Your task to perform on an android device: Open Wikipedia Image 0: 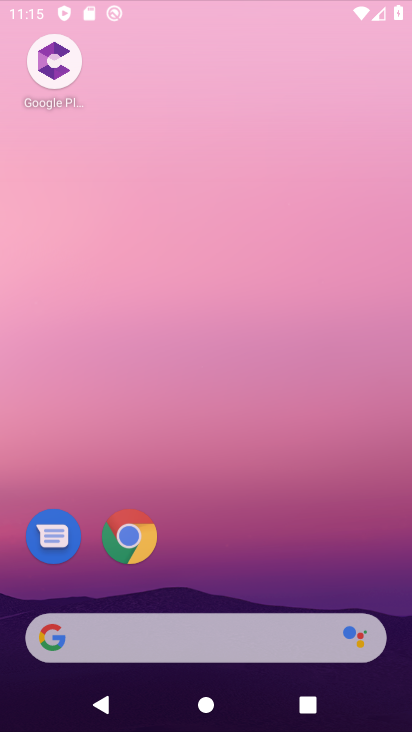
Step 0: click (296, 344)
Your task to perform on an android device: Open Wikipedia Image 1: 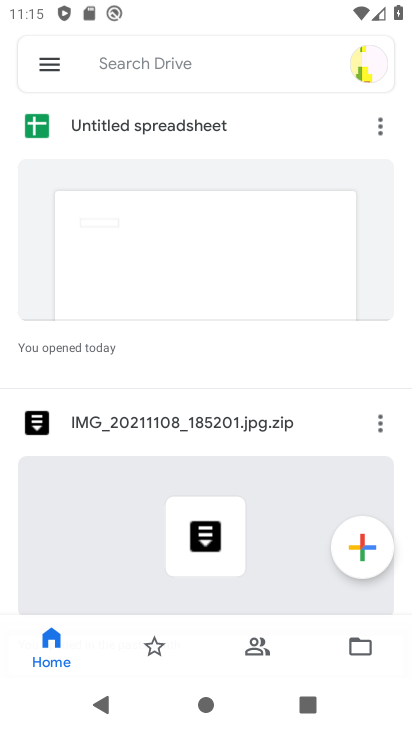
Step 1: press home button
Your task to perform on an android device: Open Wikipedia Image 2: 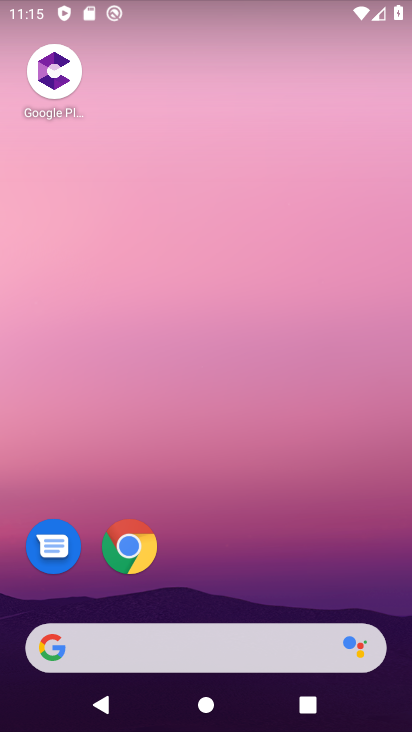
Step 2: drag from (255, 14) to (230, 534)
Your task to perform on an android device: Open Wikipedia Image 3: 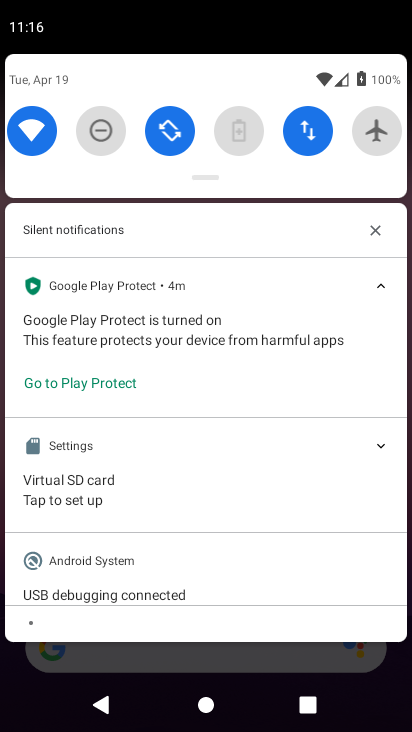
Step 3: press home button
Your task to perform on an android device: Open Wikipedia Image 4: 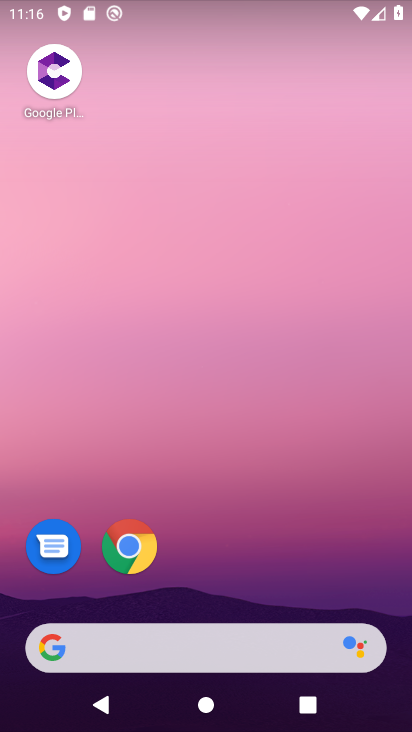
Step 4: drag from (173, 521) to (159, 84)
Your task to perform on an android device: Open Wikipedia Image 5: 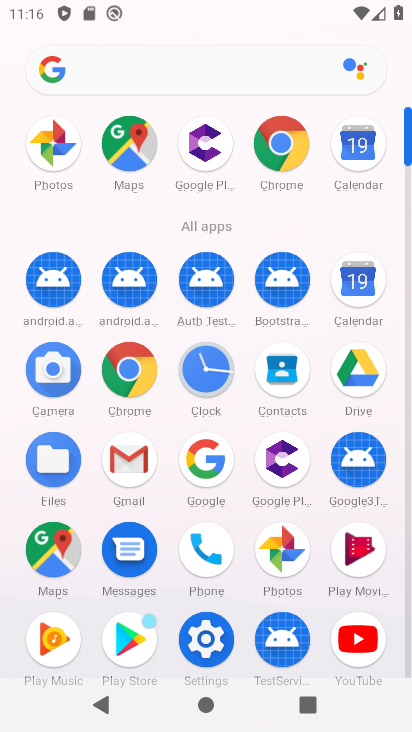
Step 5: click (127, 380)
Your task to perform on an android device: Open Wikipedia Image 6: 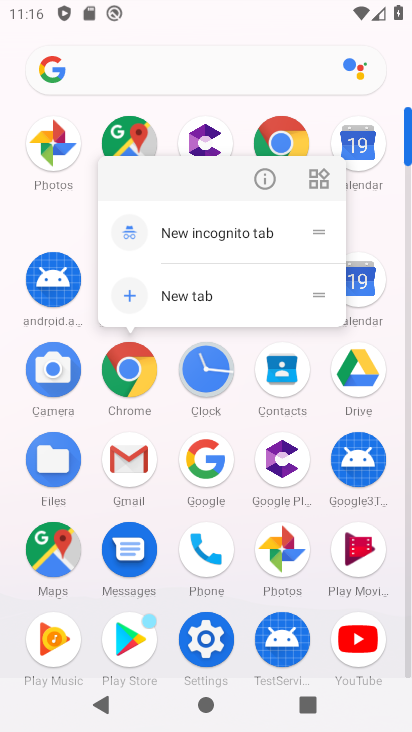
Step 6: click (127, 380)
Your task to perform on an android device: Open Wikipedia Image 7: 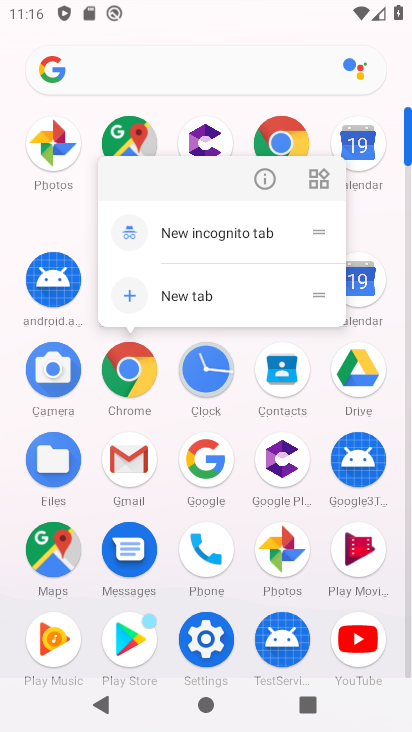
Step 7: click (126, 376)
Your task to perform on an android device: Open Wikipedia Image 8: 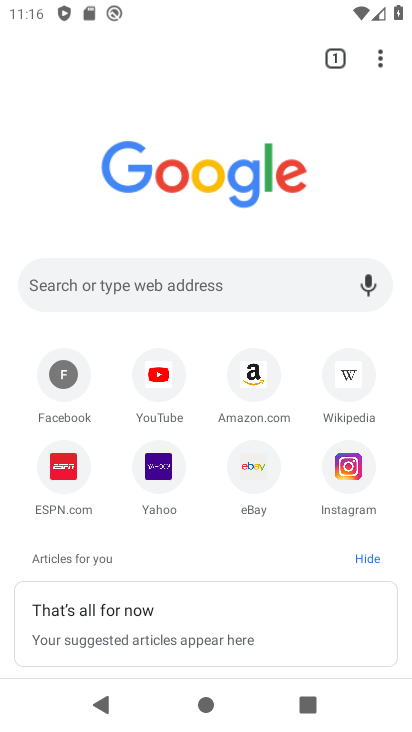
Step 8: click (359, 372)
Your task to perform on an android device: Open Wikipedia Image 9: 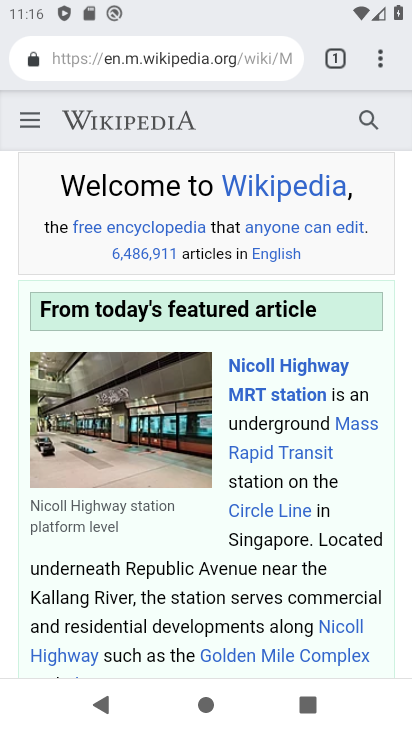
Step 9: task complete